Your task to perform on an android device: Open eBay Image 0: 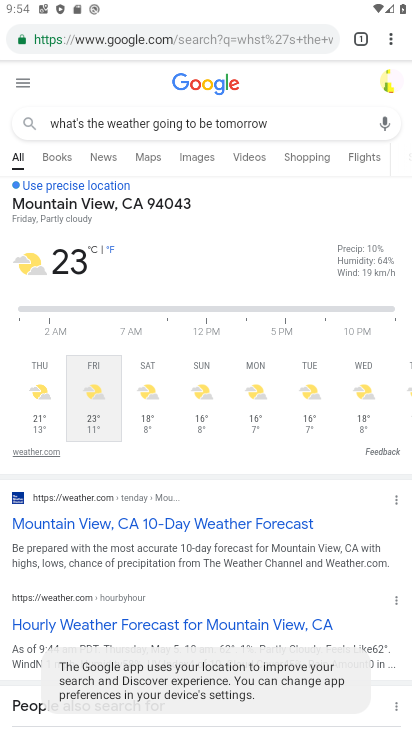
Step 0: click (60, 424)
Your task to perform on an android device: Open eBay Image 1: 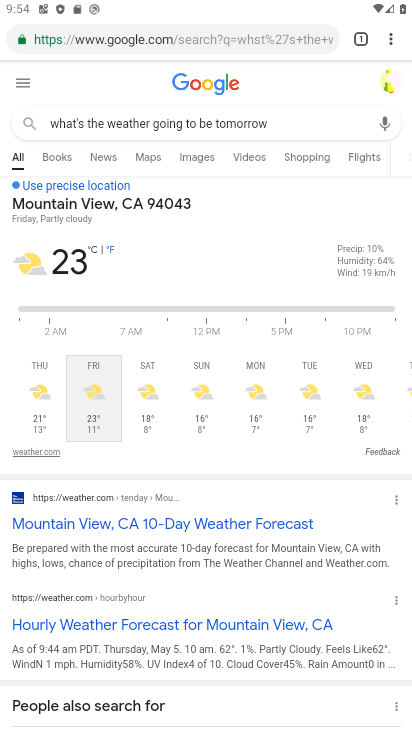
Step 1: click (200, 37)
Your task to perform on an android device: Open eBay Image 2: 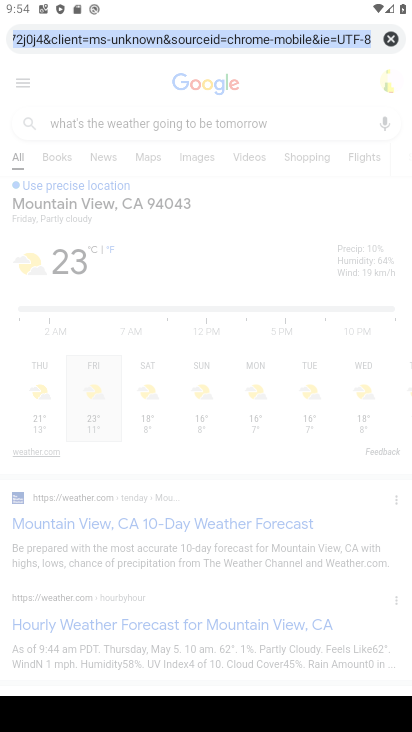
Step 2: type "ebay.com"
Your task to perform on an android device: Open eBay Image 3: 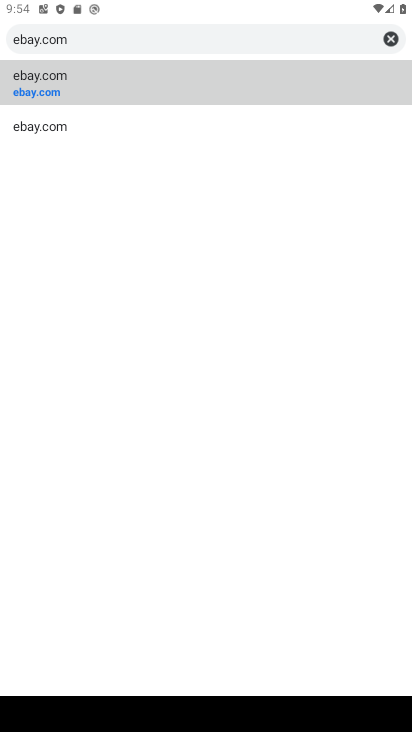
Step 3: click (48, 87)
Your task to perform on an android device: Open eBay Image 4: 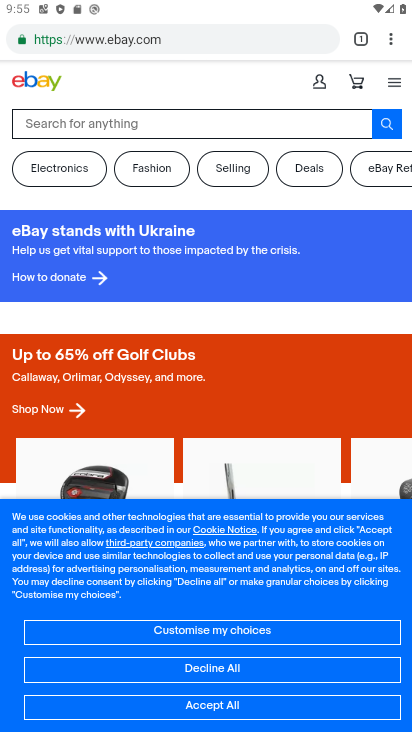
Step 4: task complete